Your task to perform on an android device: What is the news today? Image 0: 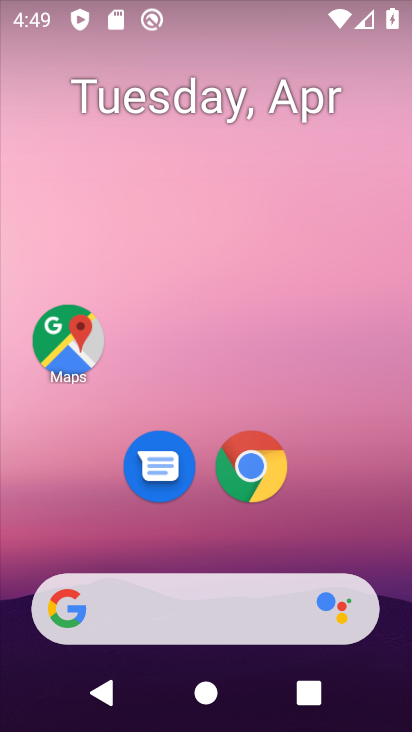
Step 0: click (205, 604)
Your task to perform on an android device: What is the news today? Image 1: 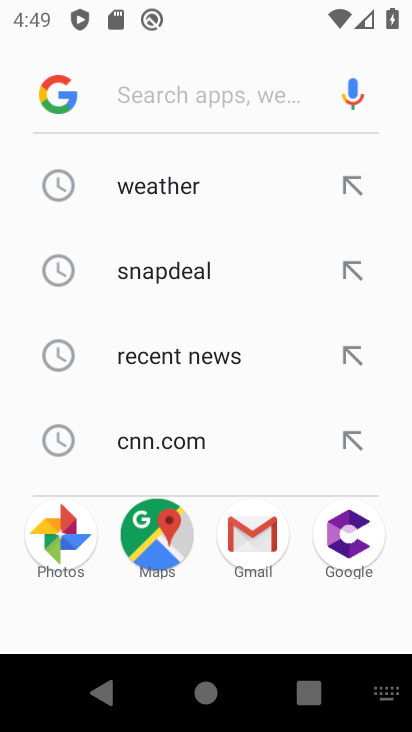
Step 1: click (65, 83)
Your task to perform on an android device: What is the news today? Image 2: 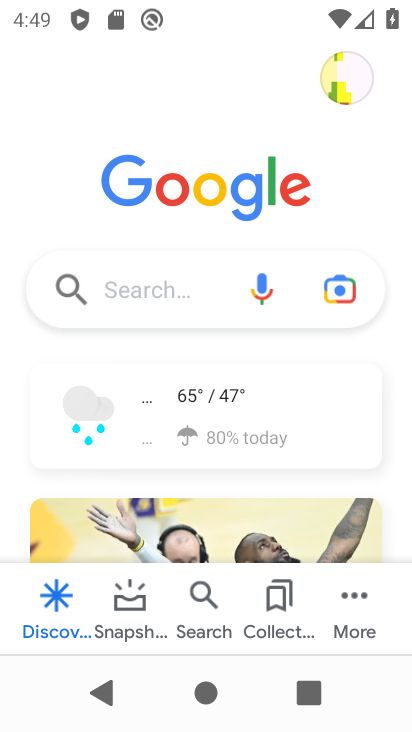
Step 2: task complete